Your task to perform on an android device: Search for Italian restaurants on Maps Image 0: 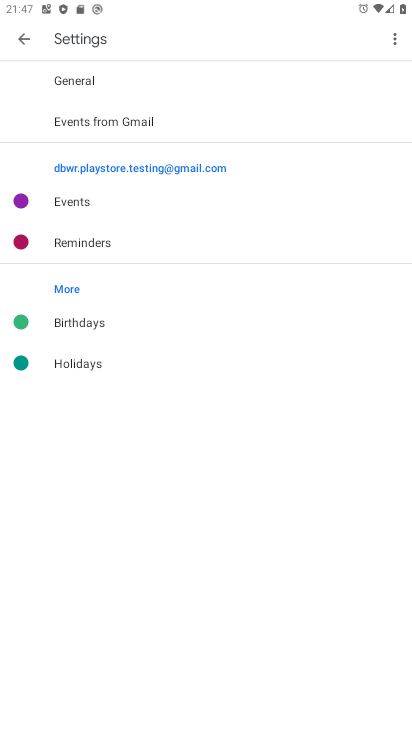
Step 0: press home button
Your task to perform on an android device: Search for Italian restaurants on Maps Image 1: 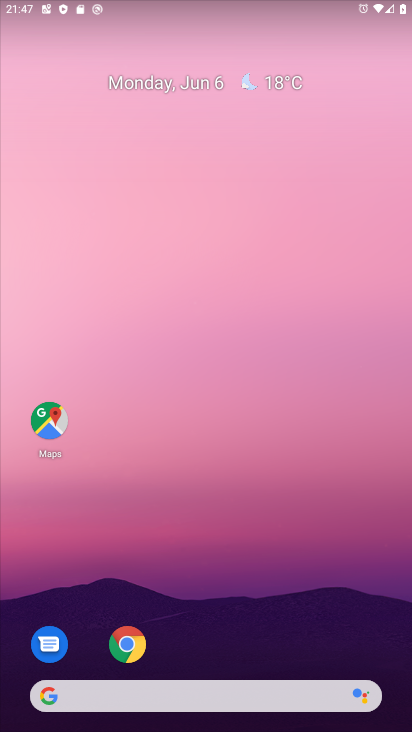
Step 1: drag from (378, 648) to (341, 188)
Your task to perform on an android device: Search for Italian restaurants on Maps Image 2: 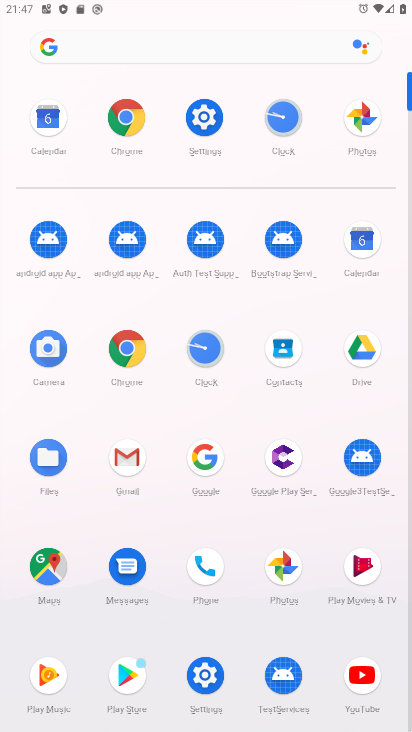
Step 2: click (56, 570)
Your task to perform on an android device: Search for Italian restaurants on Maps Image 3: 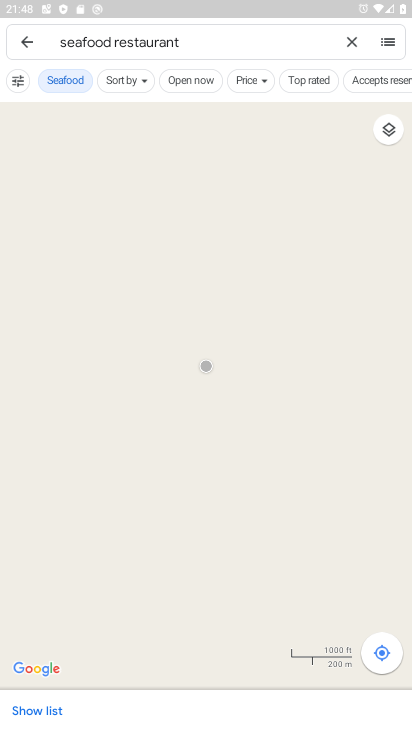
Step 3: click (354, 47)
Your task to perform on an android device: Search for Italian restaurants on Maps Image 4: 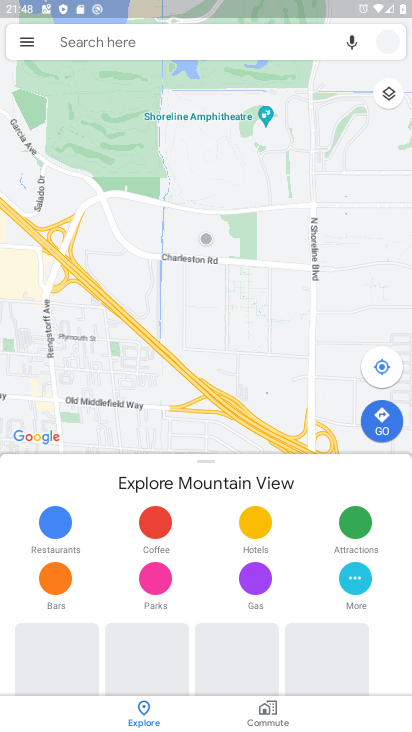
Step 4: click (201, 44)
Your task to perform on an android device: Search for Italian restaurants on Maps Image 5: 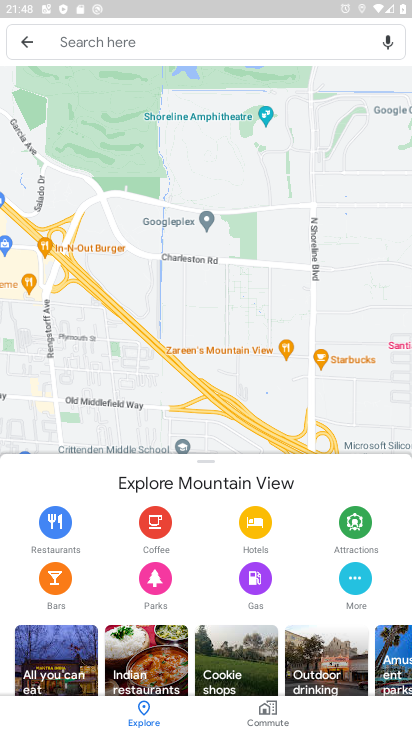
Step 5: click (133, 46)
Your task to perform on an android device: Search for Italian restaurants on Maps Image 6: 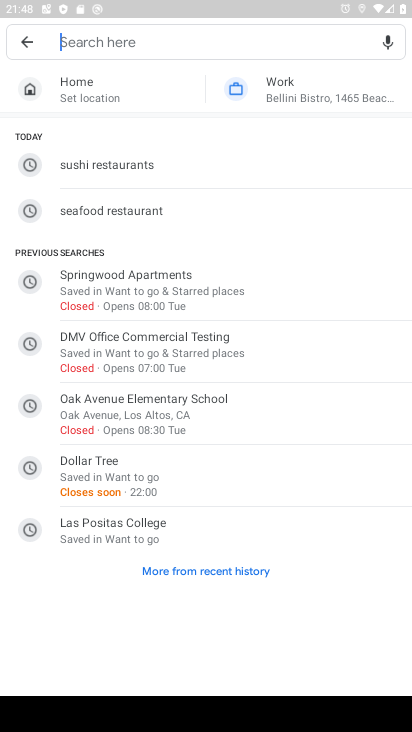
Step 6: type "italian restaurants"
Your task to perform on an android device: Search for Italian restaurants on Maps Image 7: 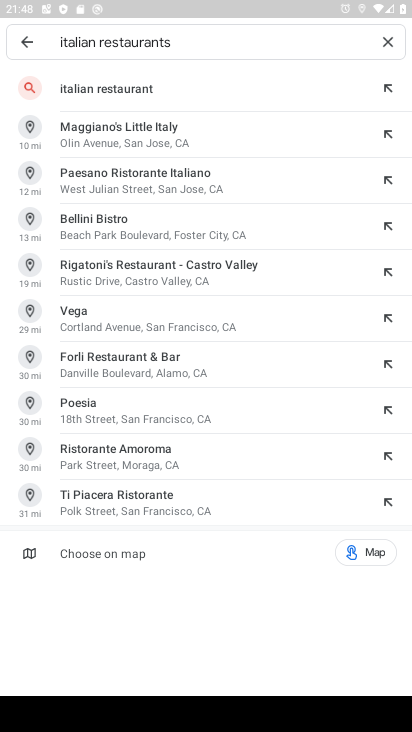
Step 7: click (135, 85)
Your task to perform on an android device: Search for Italian restaurants on Maps Image 8: 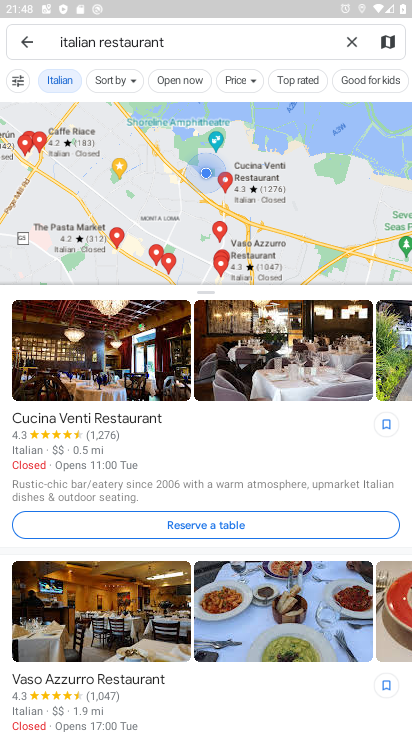
Step 8: task complete